Your task to perform on an android device: turn on sleep mode Image 0: 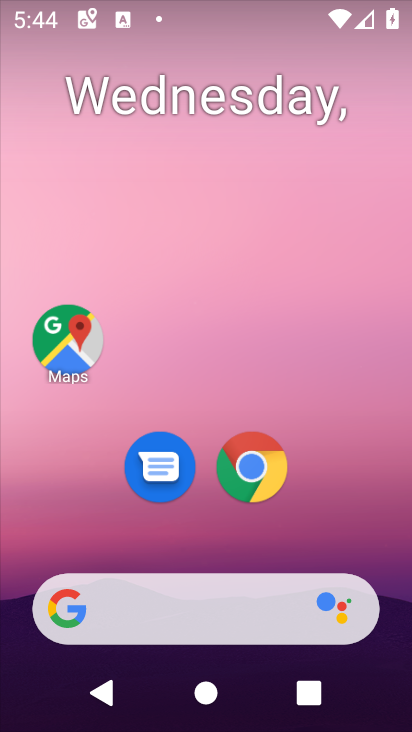
Step 0: drag from (302, 553) to (205, 75)
Your task to perform on an android device: turn on sleep mode Image 1: 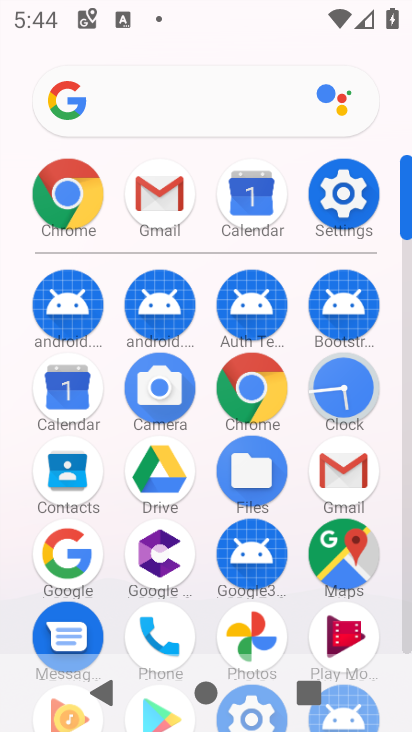
Step 1: click (335, 201)
Your task to perform on an android device: turn on sleep mode Image 2: 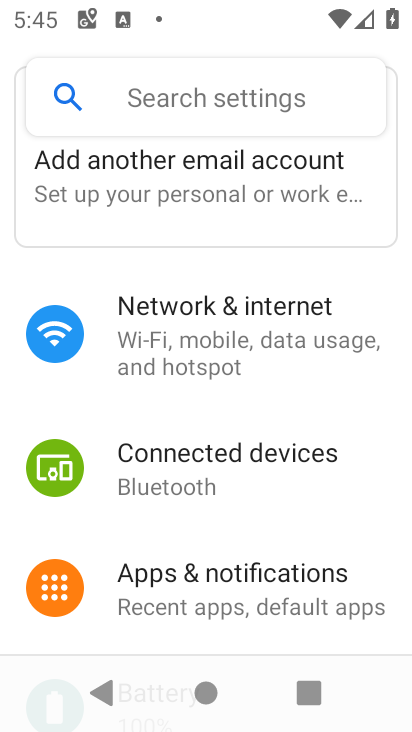
Step 2: drag from (226, 571) to (232, 248)
Your task to perform on an android device: turn on sleep mode Image 3: 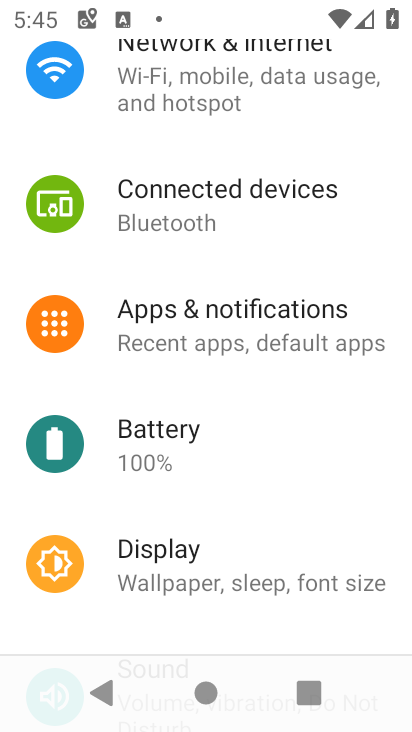
Step 3: click (222, 83)
Your task to perform on an android device: turn on sleep mode Image 4: 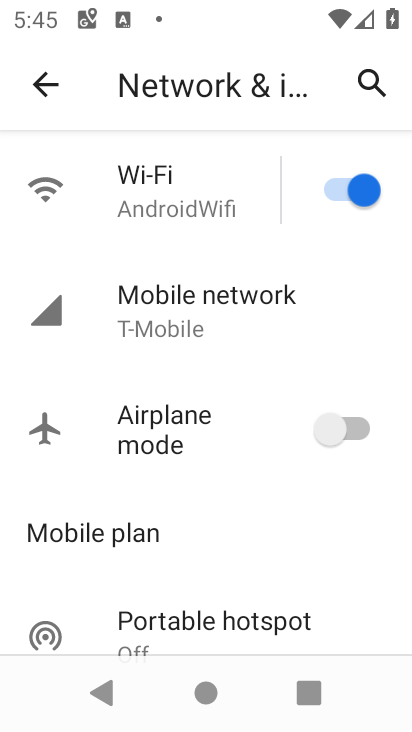
Step 4: click (45, 91)
Your task to perform on an android device: turn on sleep mode Image 5: 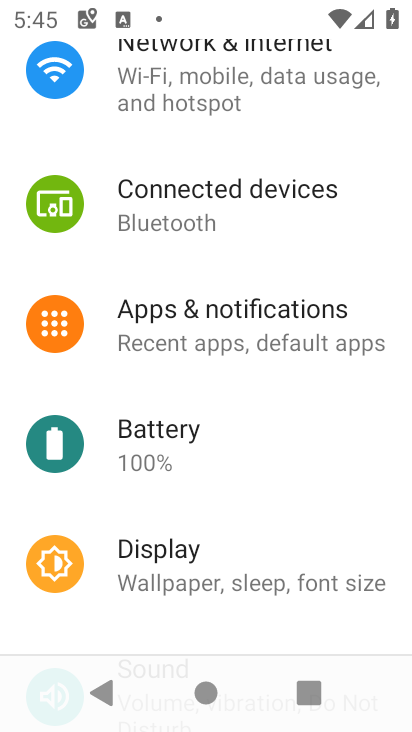
Step 5: drag from (251, 580) to (253, 190)
Your task to perform on an android device: turn on sleep mode Image 6: 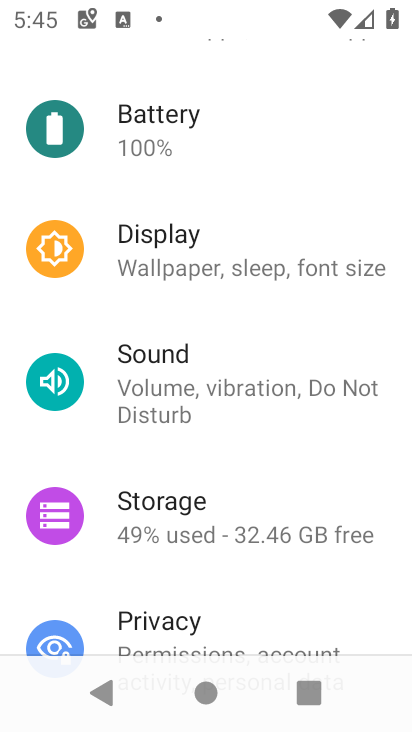
Step 6: click (193, 272)
Your task to perform on an android device: turn on sleep mode Image 7: 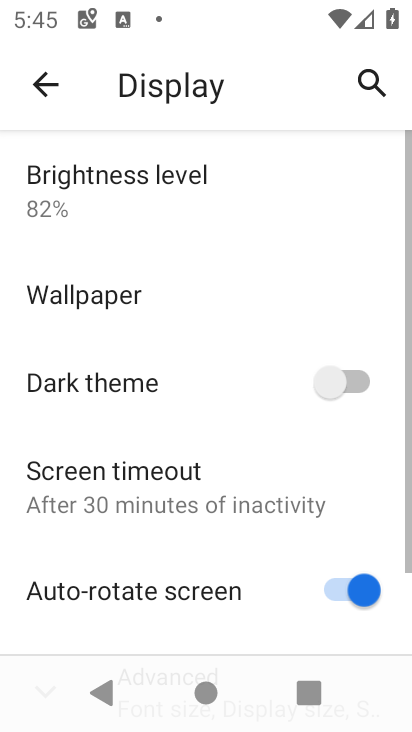
Step 7: task complete